Your task to perform on an android device: Go to ESPN.com Image 0: 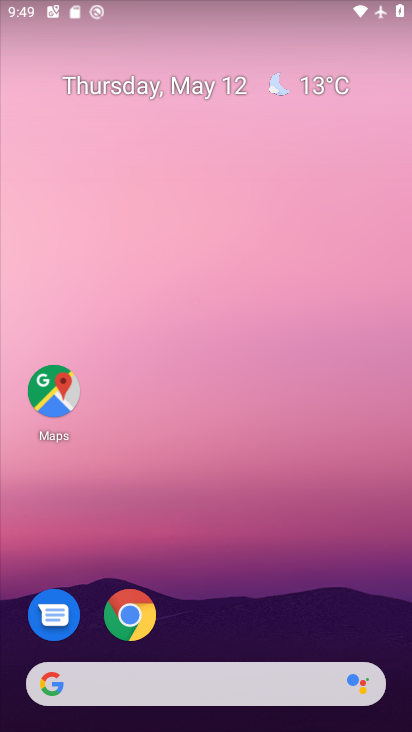
Step 0: click (132, 611)
Your task to perform on an android device: Go to ESPN.com Image 1: 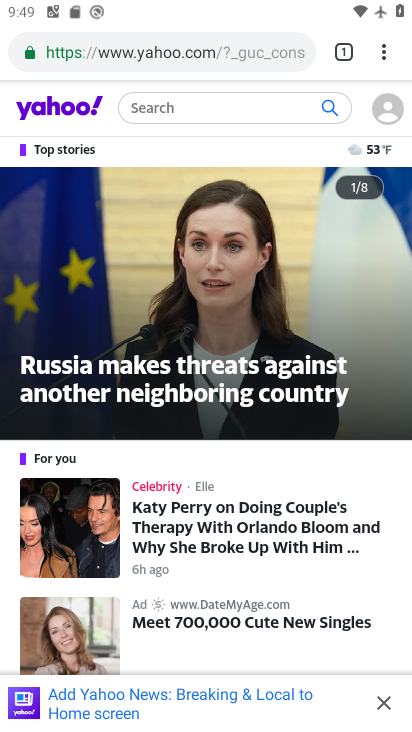
Step 1: click (379, 56)
Your task to perform on an android device: Go to ESPN.com Image 2: 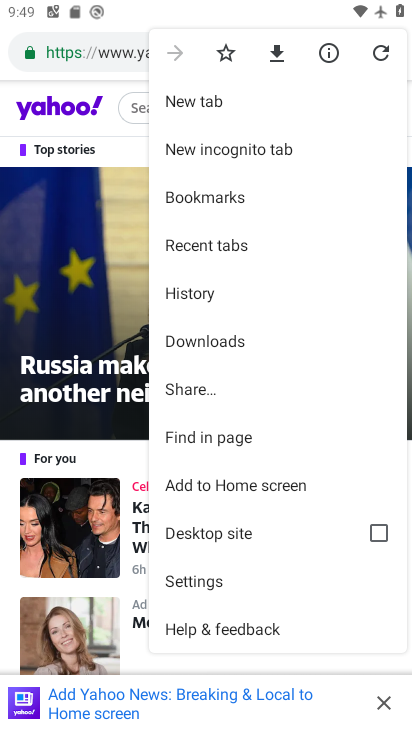
Step 2: click (202, 107)
Your task to perform on an android device: Go to ESPN.com Image 3: 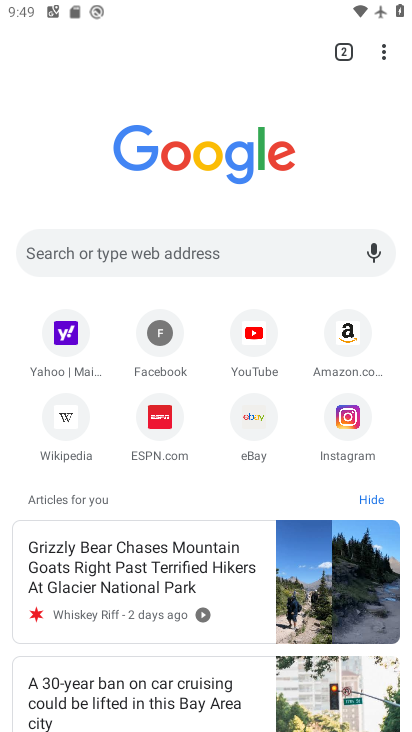
Step 3: click (159, 423)
Your task to perform on an android device: Go to ESPN.com Image 4: 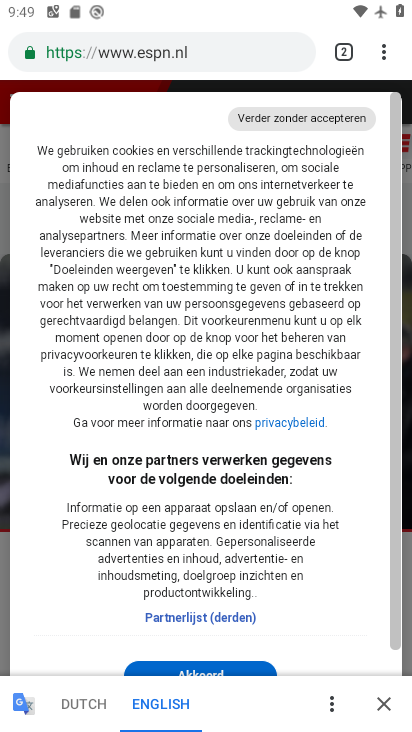
Step 4: task complete